Your task to perform on an android device: Open Reddit.com Image 0: 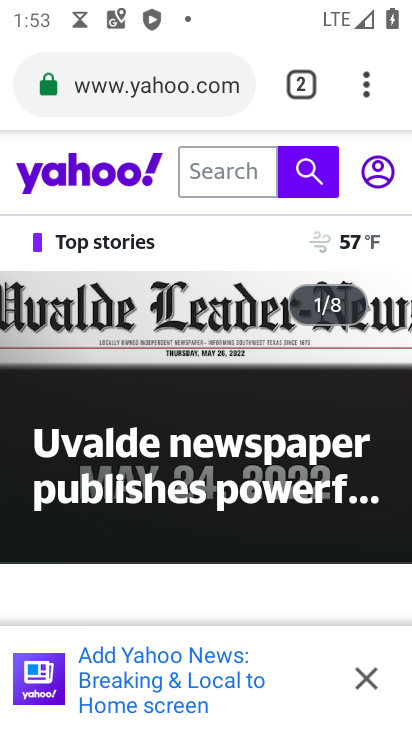
Step 0: press home button
Your task to perform on an android device: Open Reddit.com Image 1: 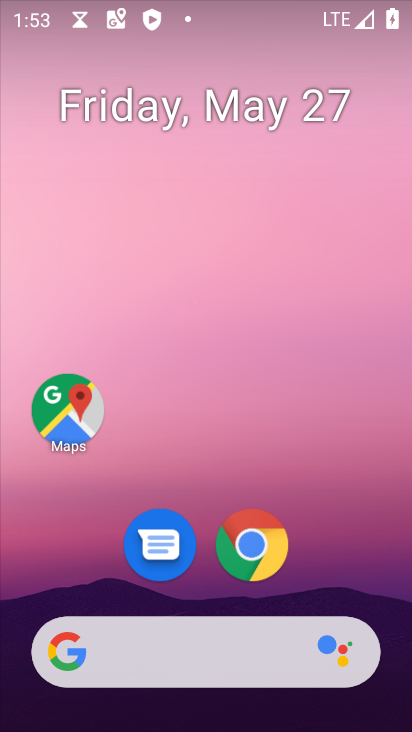
Step 1: click (253, 543)
Your task to perform on an android device: Open Reddit.com Image 2: 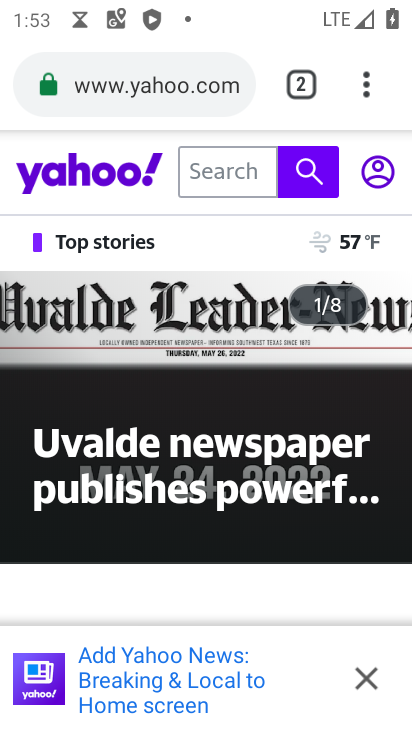
Step 2: click (156, 83)
Your task to perform on an android device: Open Reddit.com Image 3: 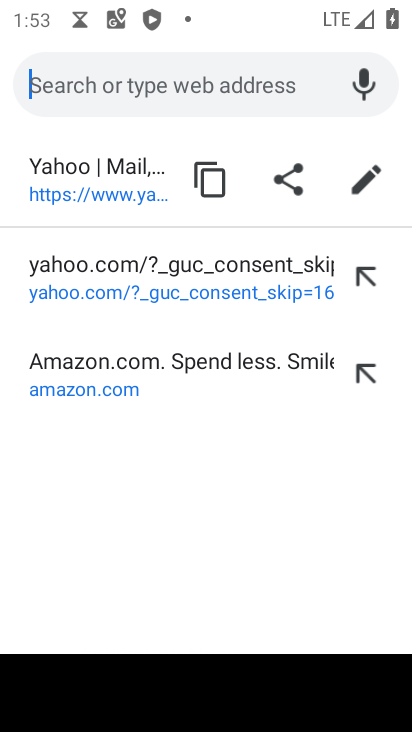
Step 3: type "Reddit.com"
Your task to perform on an android device: Open Reddit.com Image 4: 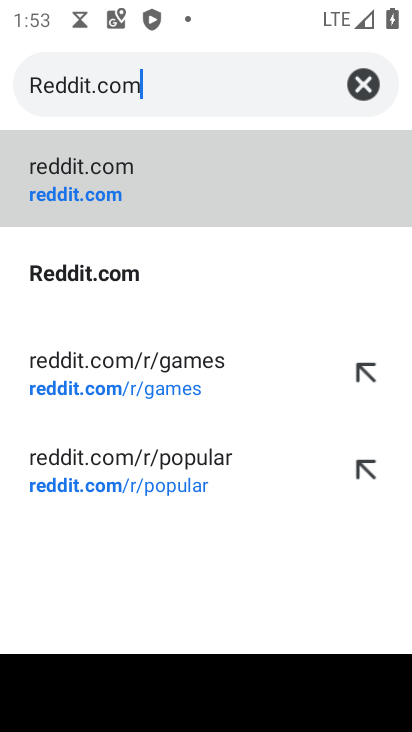
Step 4: click (162, 181)
Your task to perform on an android device: Open Reddit.com Image 5: 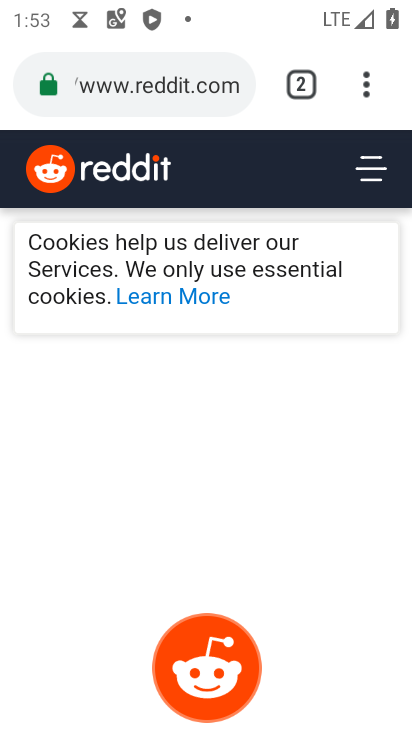
Step 5: task complete